Your task to perform on an android device: see creations saved in the google photos Image 0: 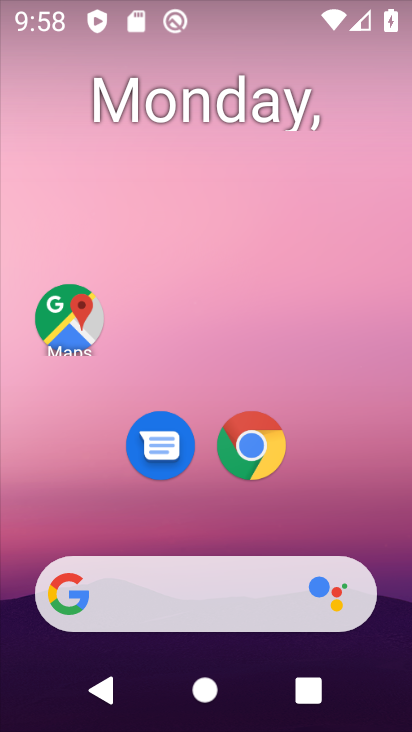
Step 0: drag from (317, 505) to (316, 32)
Your task to perform on an android device: see creations saved in the google photos Image 1: 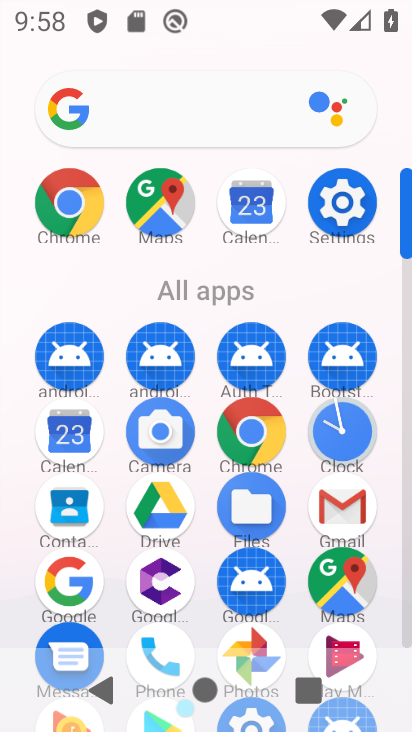
Step 1: click (256, 644)
Your task to perform on an android device: see creations saved in the google photos Image 2: 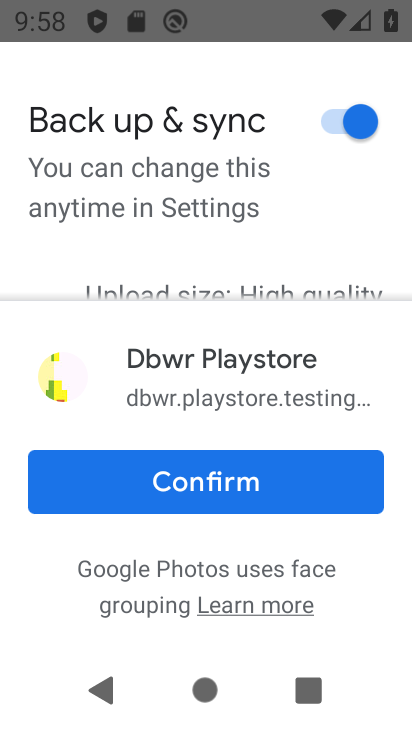
Step 2: click (303, 467)
Your task to perform on an android device: see creations saved in the google photos Image 3: 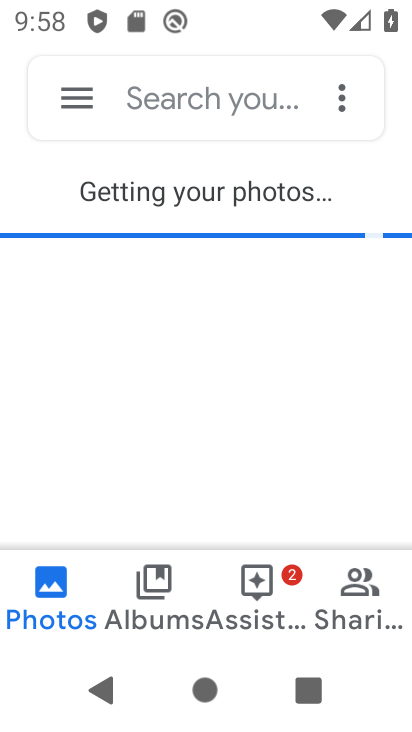
Step 3: click (355, 592)
Your task to perform on an android device: see creations saved in the google photos Image 4: 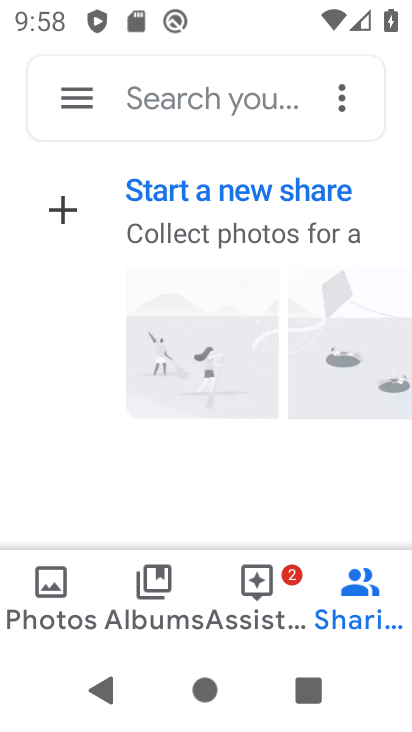
Step 4: click (232, 615)
Your task to perform on an android device: see creations saved in the google photos Image 5: 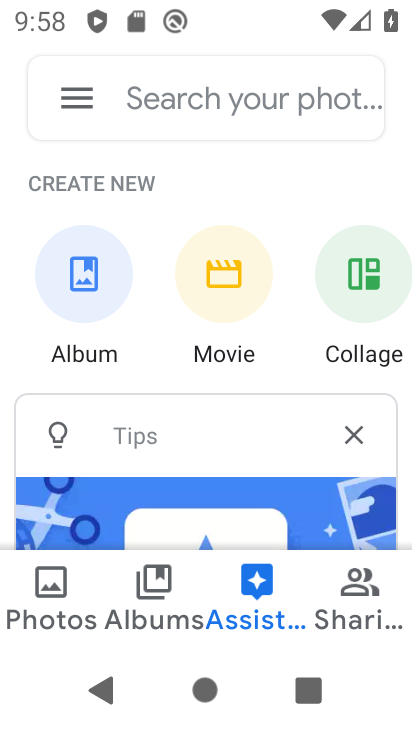
Step 5: task complete